Your task to perform on an android device: see creations saved in the google photos Image 0: 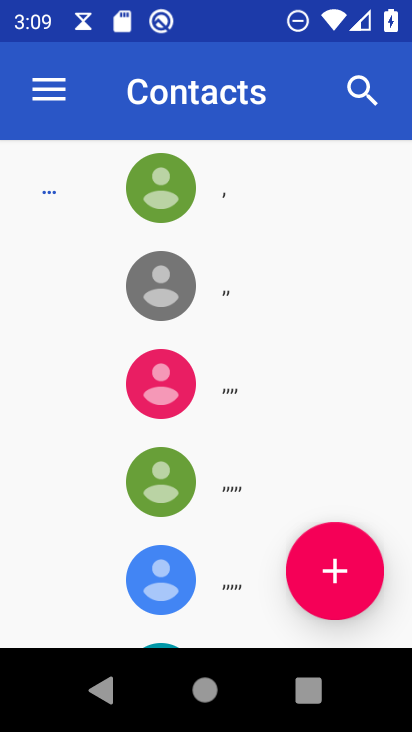
Step 0: press home button
Your task to perform on an android device: see creations saved in the google photos Image 1: 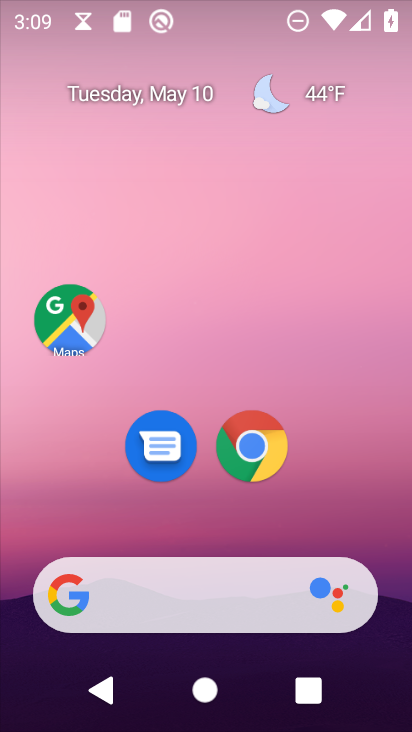
Step 1: drag from (364, 467) to (343, 128)
Your task to perform on an android device: see creations saved in the google photos Image 2: 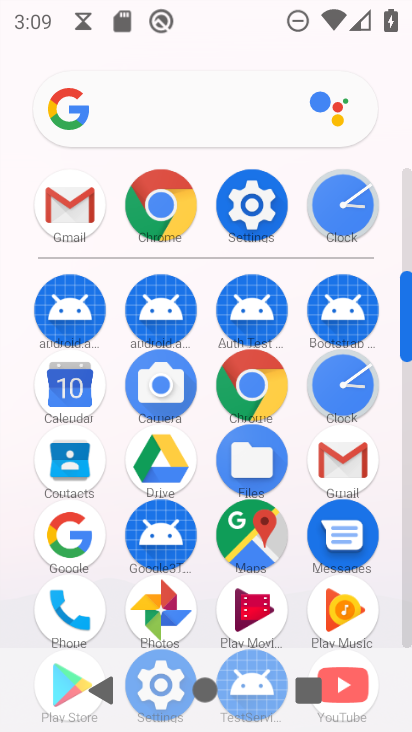
Step 2: click (174, 607)
Your task to perform on an android device: see creations saved in the google photos Image 3: 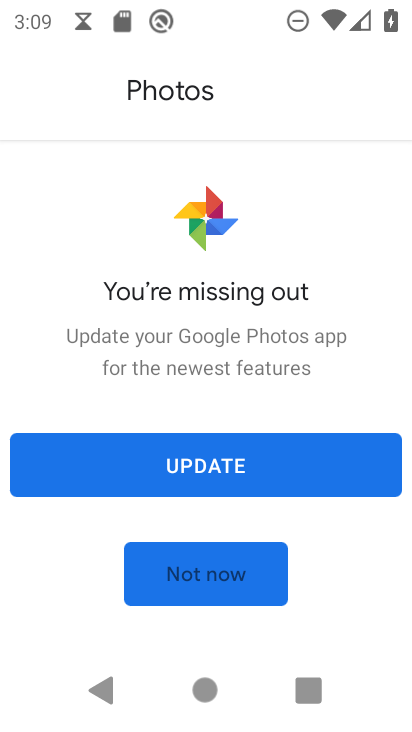
Step 3: click (224, 471)
Your task to perform on an android device: see creations saved in the google photos Image 4: 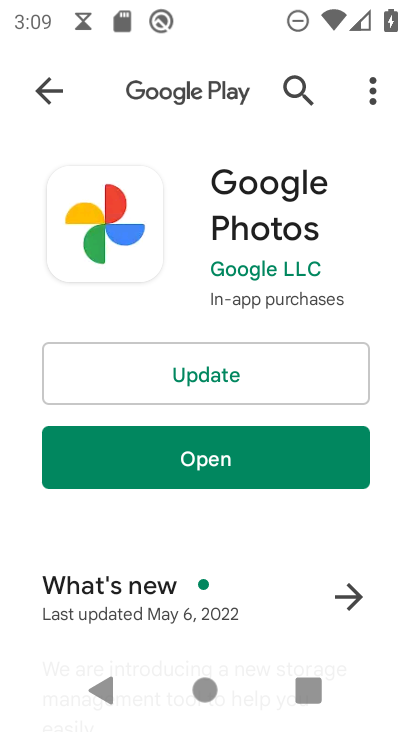
Step 4: click (173, 381)
Your task to perform on an android device: see creations saved in the google photos Image 5: 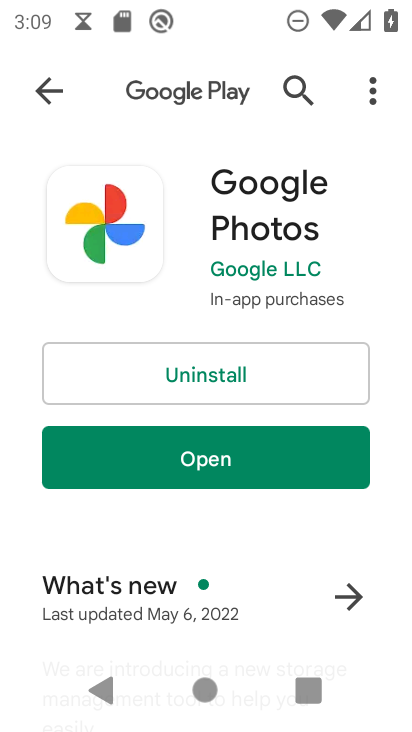
Step 5: click (224, 473)
Your task to perform on an android device: see creations saved in the google photos Image 6: 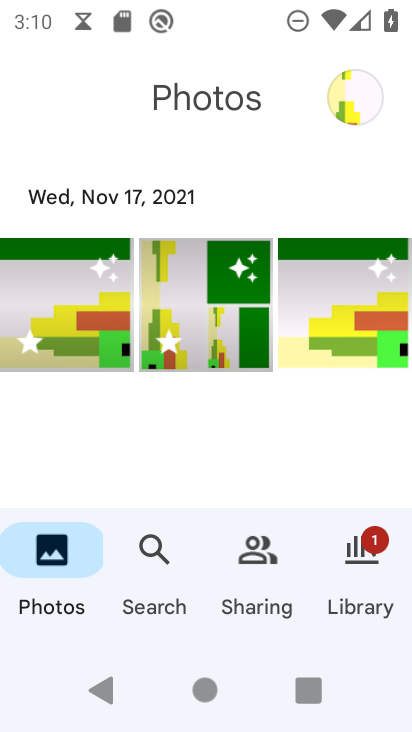
Step 6: task complete